Your task to perform on an android device: open chrome and create a bookmark for the current page Image 0: 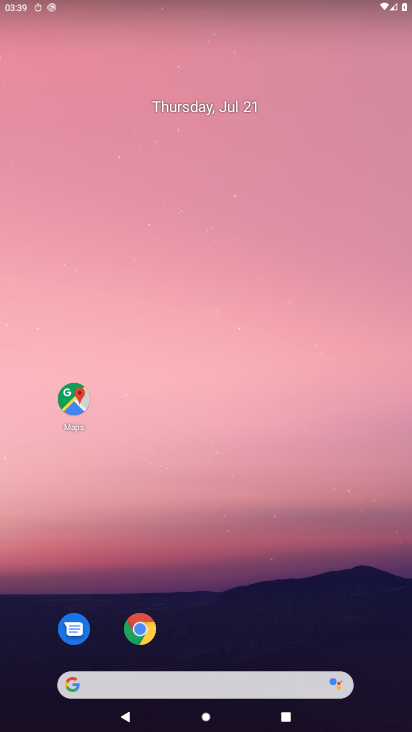
Step 0: click (138, 636)
Your task to perform on an android device: open chrome and create a bookmark for the current page Image 1: 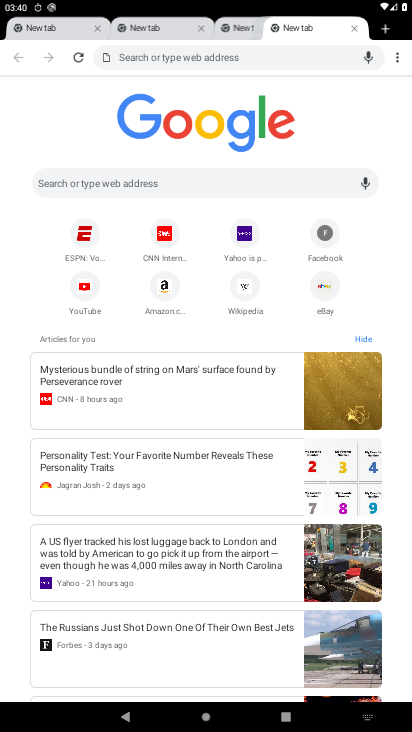
Step 1: click (393, 57)
Your task to perform on an android device: open chrome and create a bookmark for the current page Image 2: 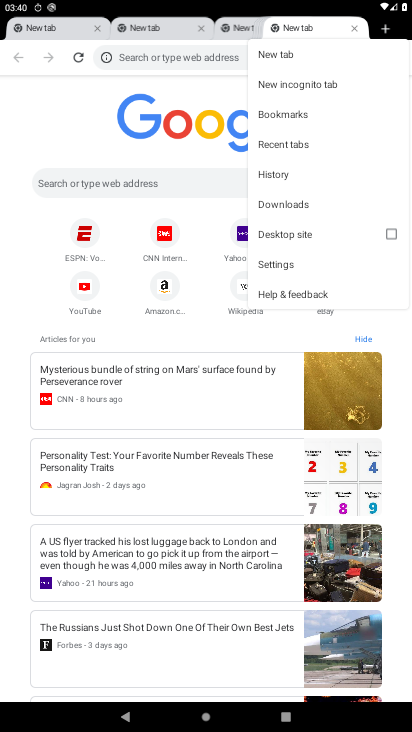
Step 2: click (270, 112)
Your task to perform on an android device: open chrome and create a bookmark for the current page Image 3: 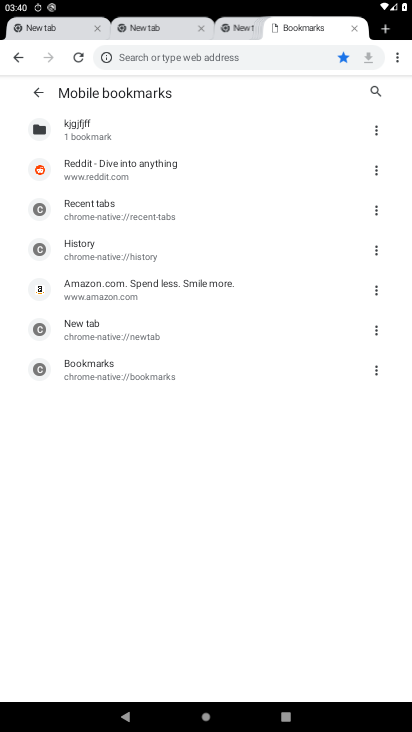
Step 3: click (344, 59)
Your task to perform on an android device: open chrome and create a bookmark for the current page Image 4: 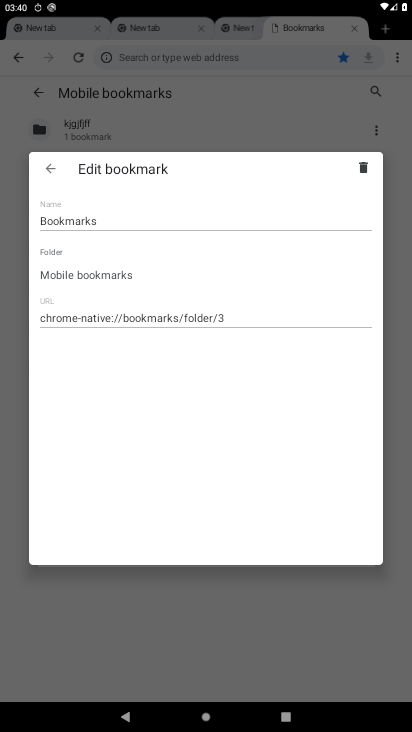
Step 4: click (228, 627)
Your task to perform on an android device: open chrome and create a bookmark for the current page Image 5: 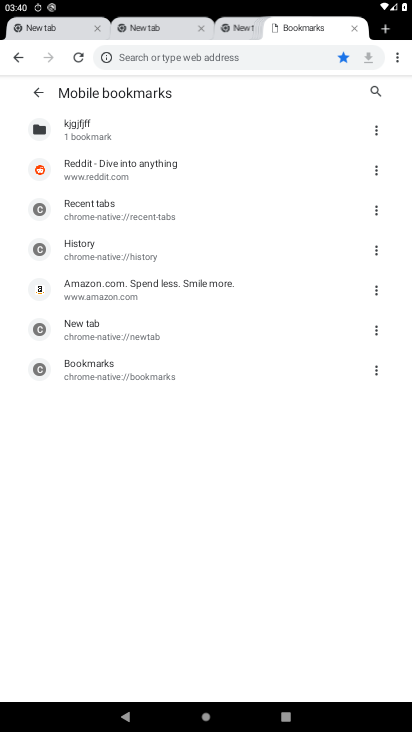
Step 5: task complete